Your task to perform on an android device: turn off notifications settings in the gmail app Image 0: 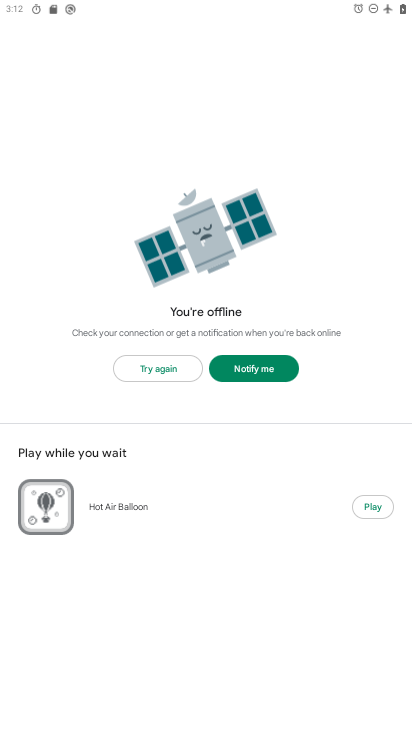
Step 0: press home button
Your task to perform on an android device: turn off notifications settings in the gmail app Image 1: 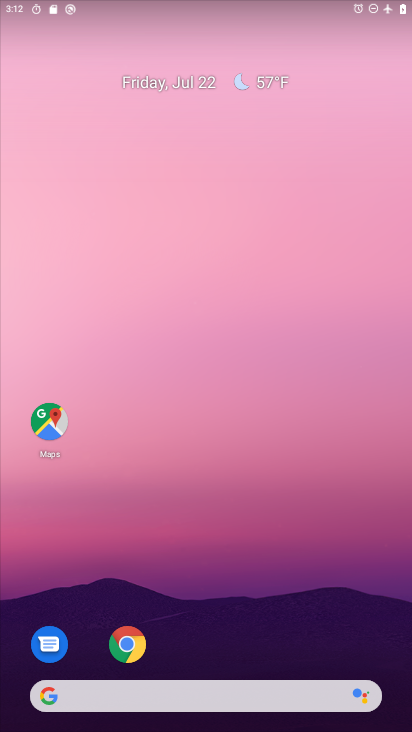
Step 1: drag from (187, 637) to (187, 235)
Your task to perform on an android device: turn off notifications settings in the gmail app Image 2: 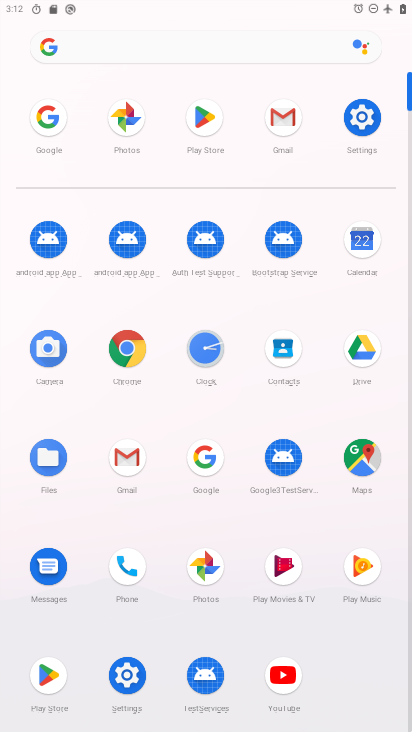
Step 2: click (276, 129)
Your task to perform on an android device: turn off notifications settings in the gmail app Image 3: 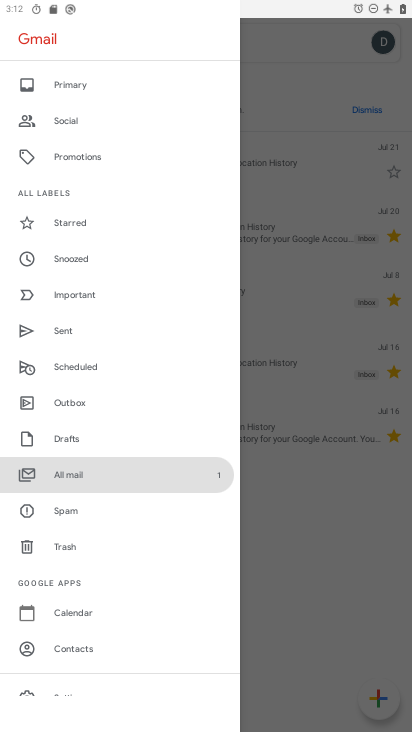
Step 3: drag from (106, 642) to (141, 337)
Your task to perform on an android device: turn off notifications settings in the gmail app Image 4: 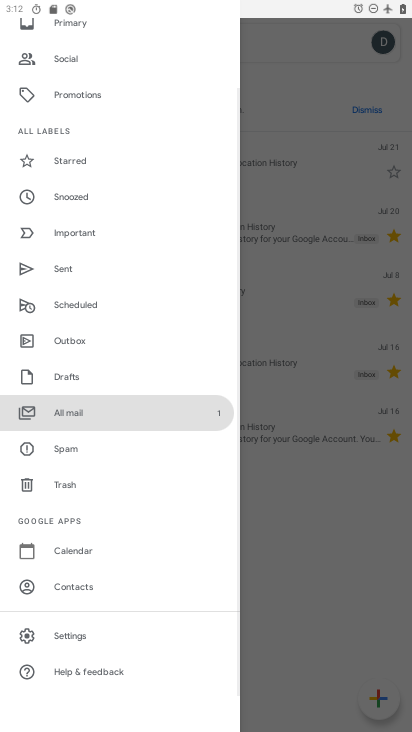
Step 4: click (89, 628)
Your task to perform on an android device: turn off notifications settings in the gmail app Image 5: 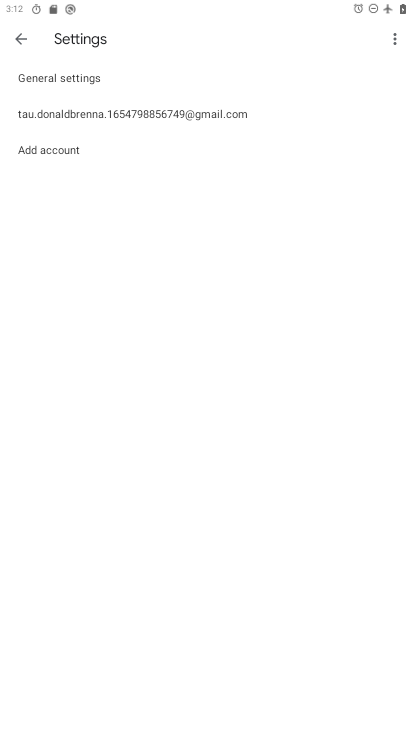
Step 5: click (141, 123)
Your task to perform on an android device: turn off notifications settings in the gmail app Image 6: 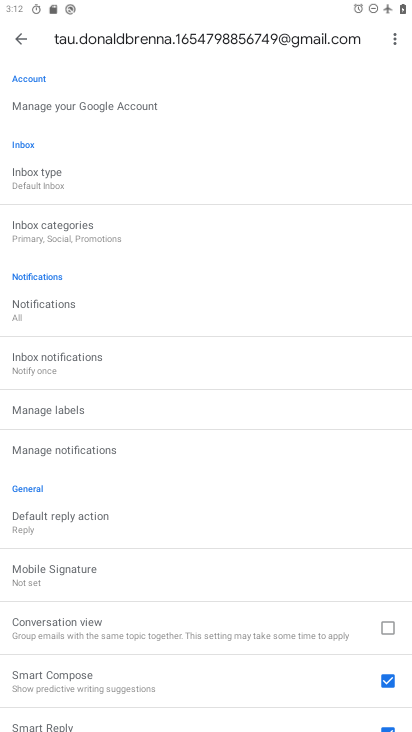
Step 6: click (131, 454)
Your task to perform on an android device: turn off notifications settings in the gmail app Image 7: 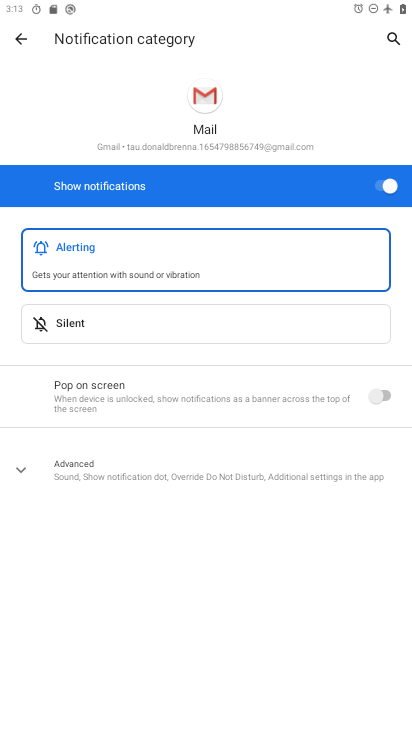
Step 7: click (385, 183)
Your task to perform on an android device: turn off notifications settings in the gmail app Image 8: 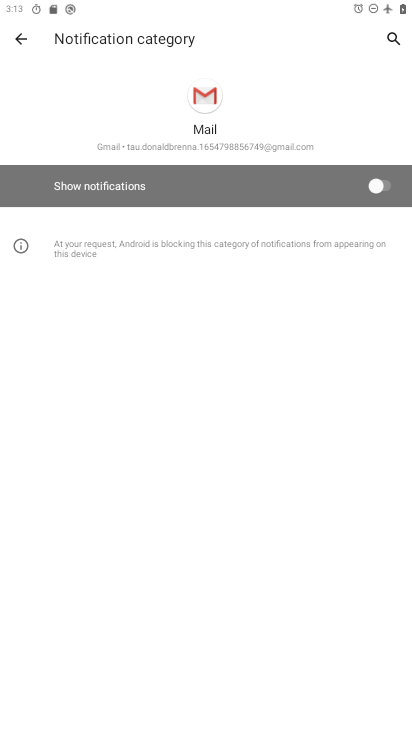
Step 8: task complete